Your task to perform on an android device: turn on priority inbox in the gmail app Image 0: 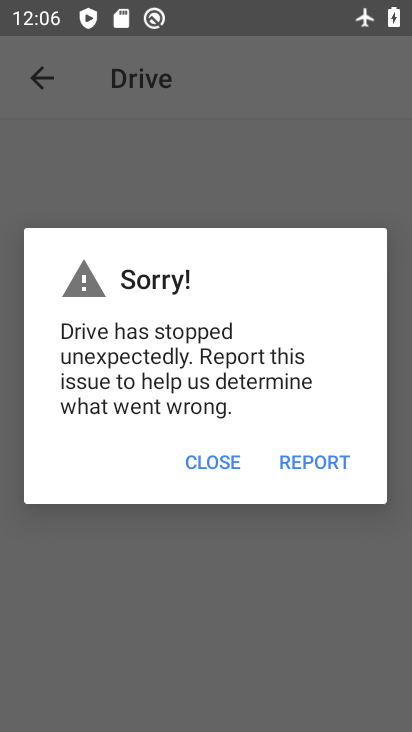
Step 0: press home button
Your task to perform on an android device: turn on priority inbox in the gmail app Image 1: 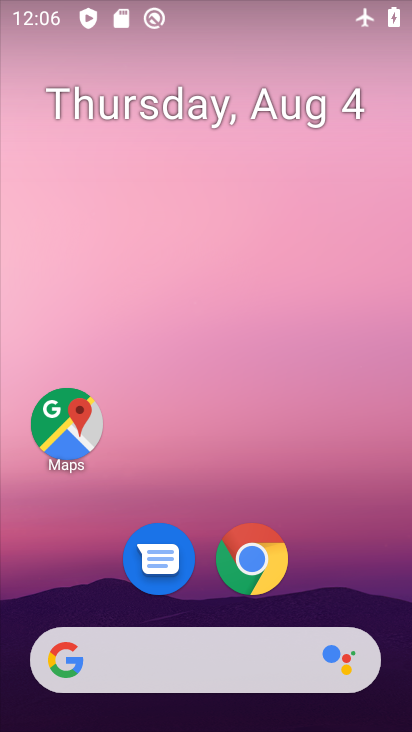
Step 1: drag from (174, 680) to (215, 103)
Your task to perform on an android device: turn on priority inbox in the gmail app Image 2: 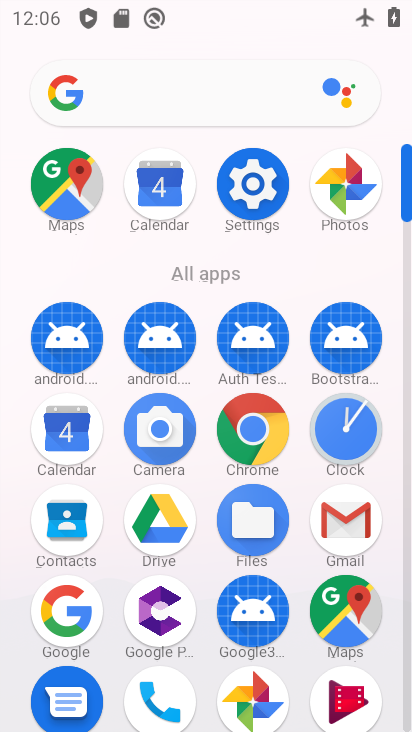
Step 2: click (345, 520)
Your task to perform on an android device: turn on priority inbox in the gmail app Image 3: 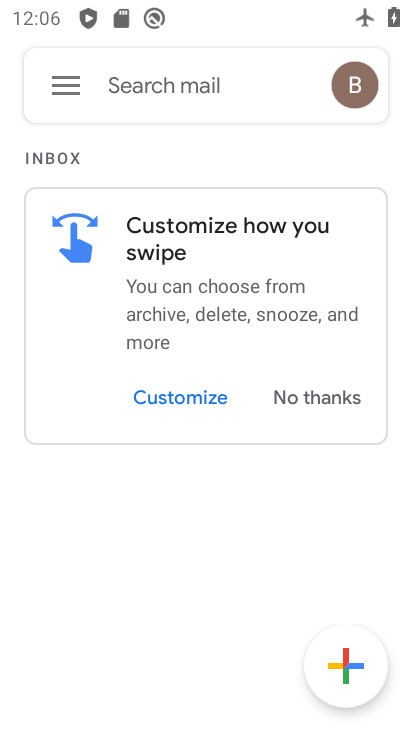
Step 3: click (63, 88)
Your task to perform on an android device: turn on priority inbox in the gmail app Image 4: 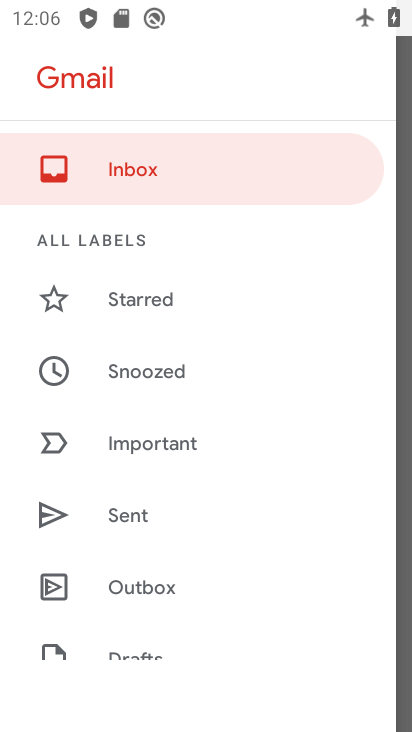
Step 4: drag from (155, 401) to (195, 330)
Your task to perform on an android device: turn on priority inbox in the gmail app Image 5: 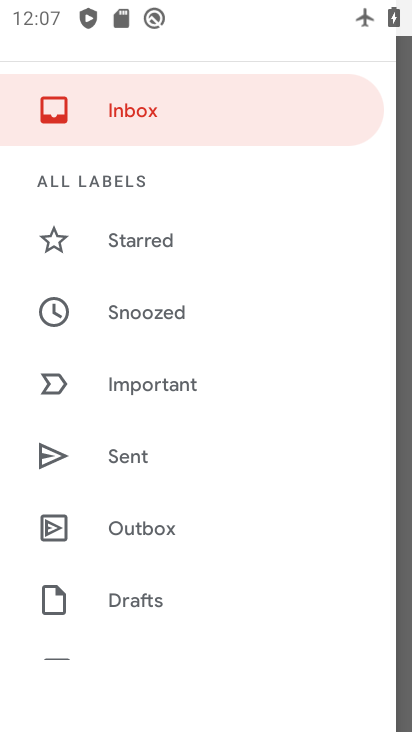
Step 5: drag from (156, 473) to (211, 393)
Your task to perform on an android device: turn on priority inbox in the gmail app Image 6: 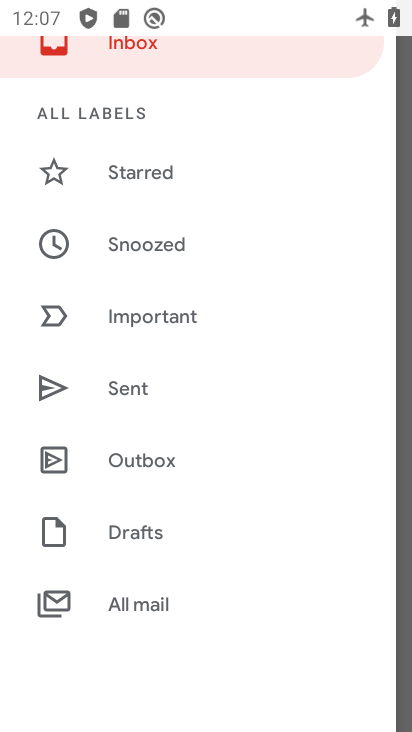
Step 6: drag from (123, 535) to (188, 446)
Your task to perform on an android device: turn on priority inbox in the gmail app Image 7: 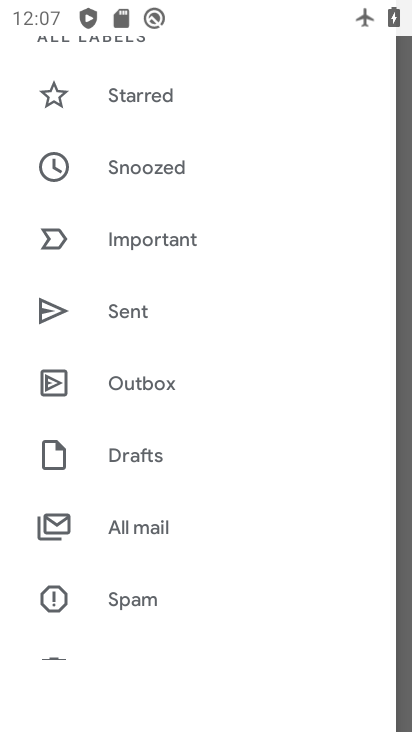
Step 7: drag from (110, 570) to (168, 466)
Your task to perform on an android device: turn on priority inbox in the gmail app Image 8: 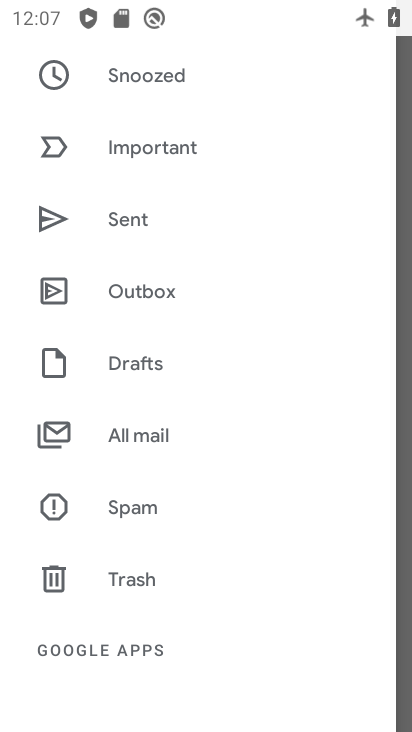
Step 8: drag from (116, 560) to (185, 465)
Your task to perform on an android device: turn on priority inbox in the gmail app Image 9: 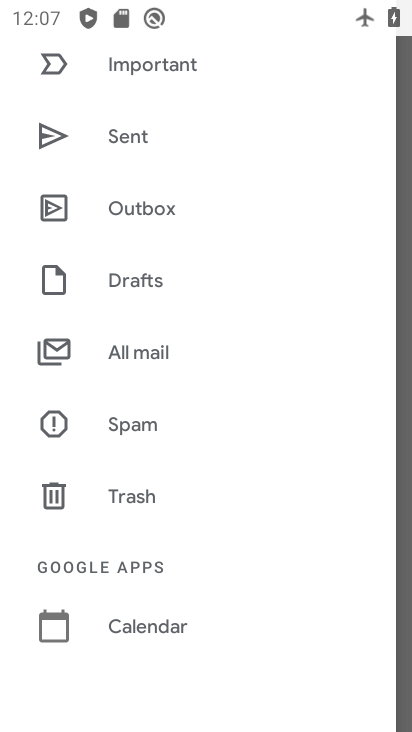
Step 9: drag from (144, 580) to (182, 509)
Your task to perform on an android device: turn on priority inbox in the gmail app Image 10: 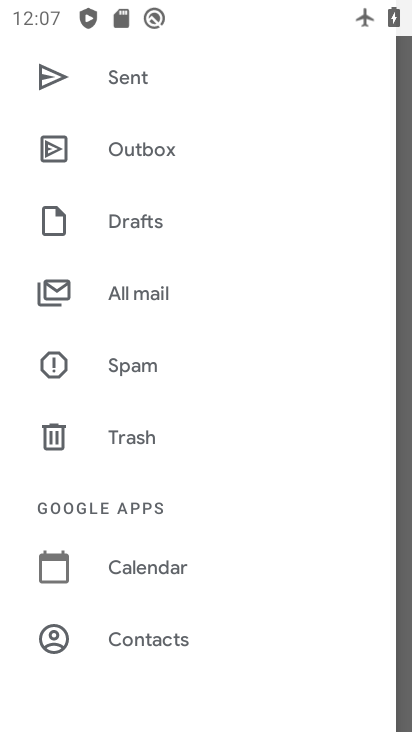
Step 10: drag from (140, 621) to (211, 534)
Your task to perform on an android device: turn on priority inbox in the gmail app Image 11: 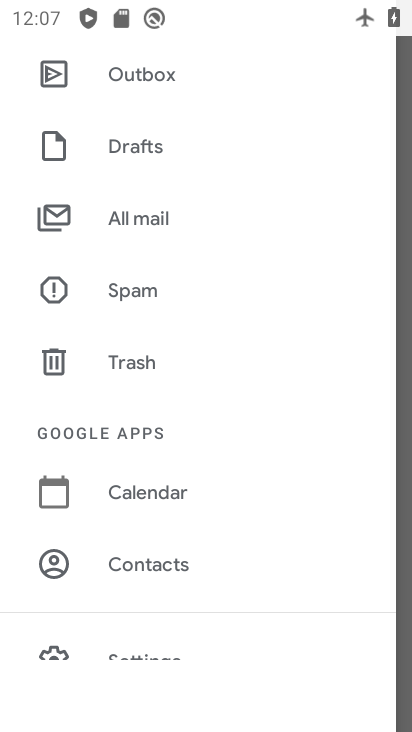
Step 11: drag from (148, 600) to (204, 520)
Your task to perform on an android device: turn on priority inbox in the gmail app Image 12: 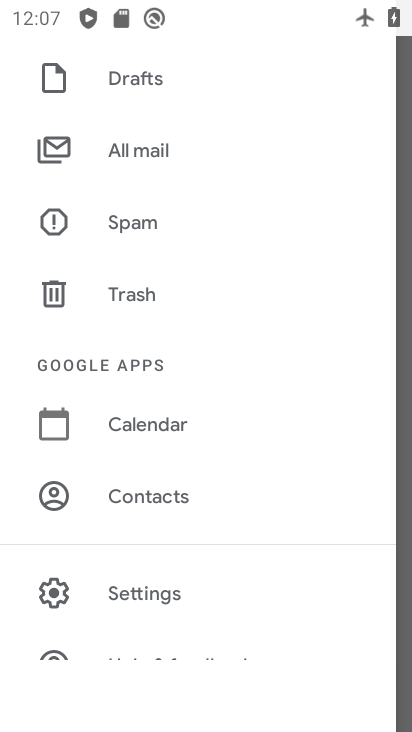
Step 12: drag from (143, 562) to (232, 436)
Your task to perform on an android device: turn on priority inbox in the gmail app Image 13: 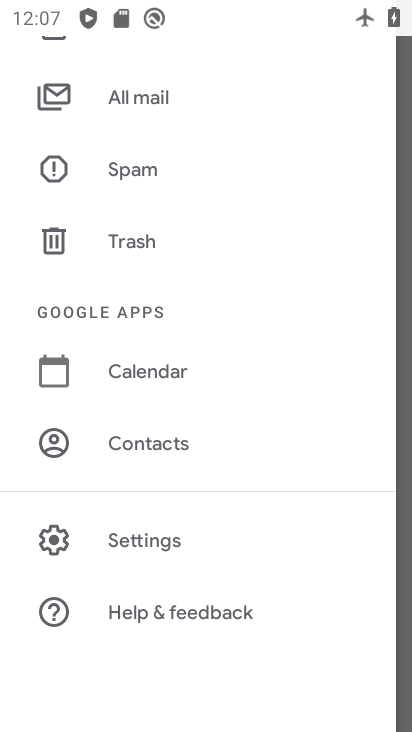
Step 13: click (176, 542)
Your task to perform on an android device: turn on priority inbox in the gmail app Image 14: 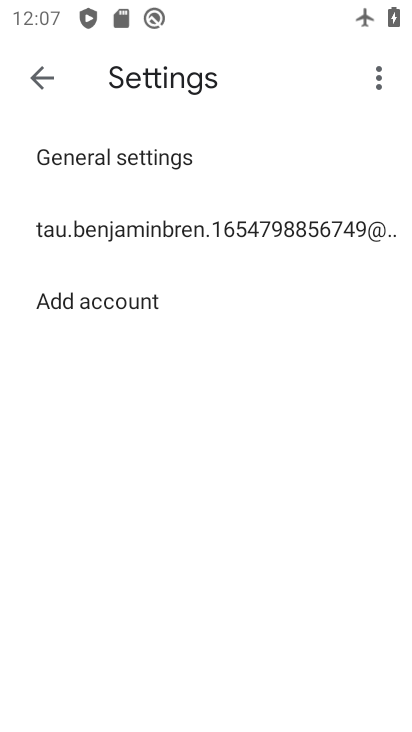
Step 14: click (245, 228)
Your task to perform on an android device: turn on priority inbox in the gmail app Image 15: 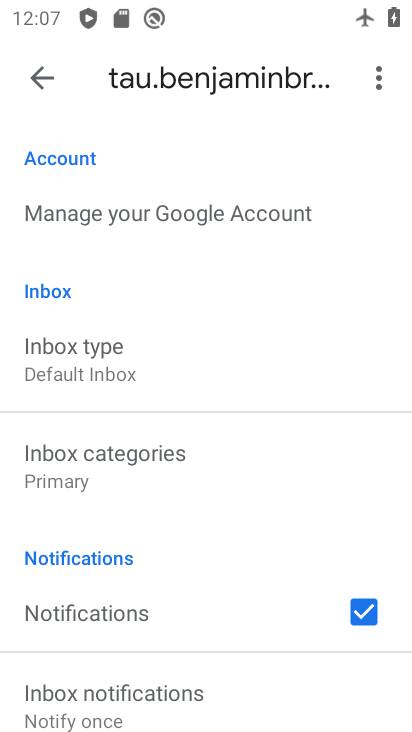
Step 15: drag from (115, 500) to (167, 378)
Your task to perform on an android device: turn on priority inbox in the gmail app Image 16: 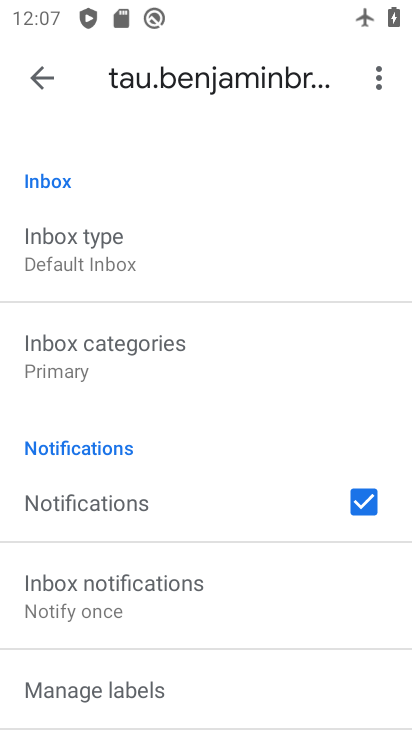
Step 16: drag from (186, 633) to (191, 488)
Your task to perform on an android device: turn on priority inbox in the gmail app Image 17: 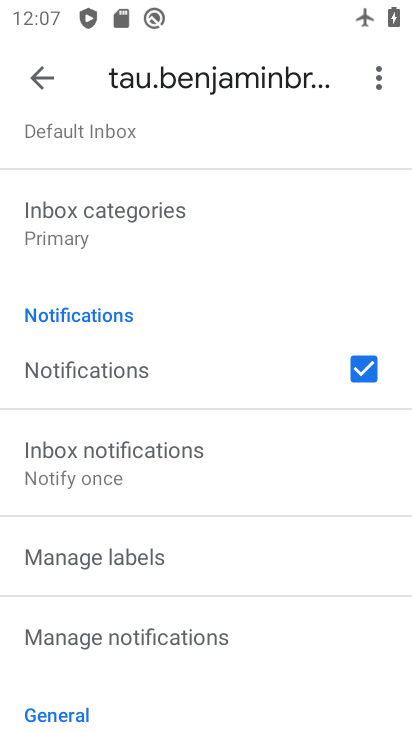
Step 17: drag from (136, 595) to (173, 509)
Your task to perform on an android device: turn on priority inbox in the gmail app Image 18: 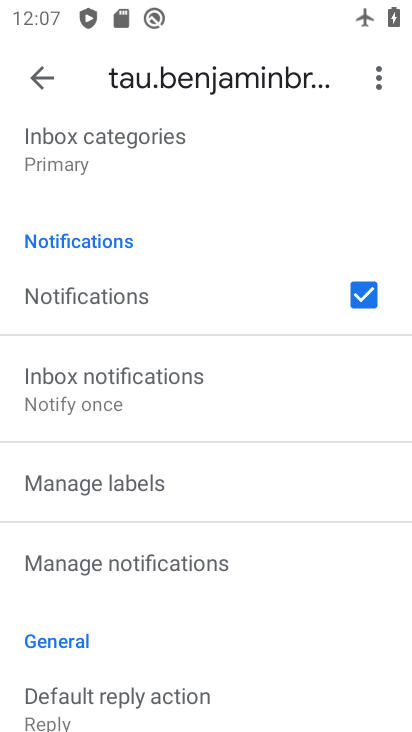
Step 18: drag from (140, 618) to (189, 520)
Your task to perform on an android device: turn on priority inbox in the gmail app Image 19: 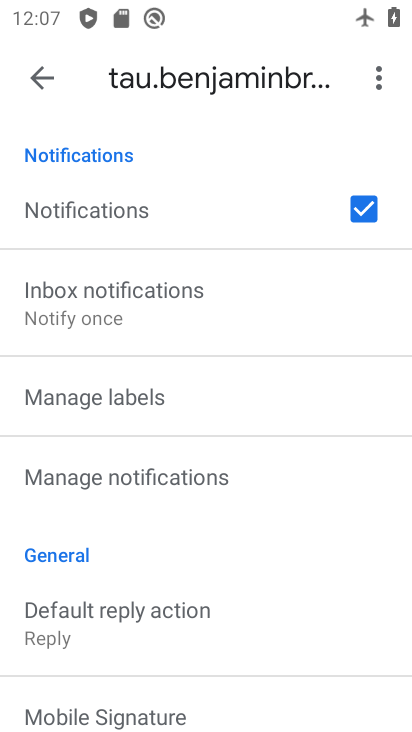
Step 19: drag from (153, 647) to (186, 547)
Your task to perform on an android device: turn on priority inbox in the gmail app Image 20: 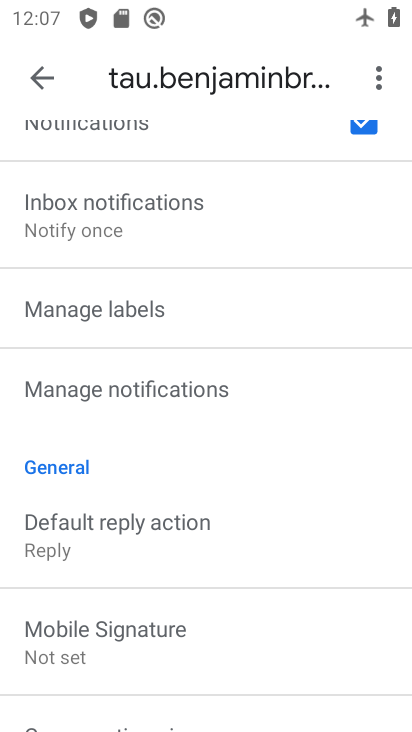
Step 20: drag from (150, 691) to (183, 592)
Your task to perform on an android device: turn on priority inbox in the gmail app Image 21: 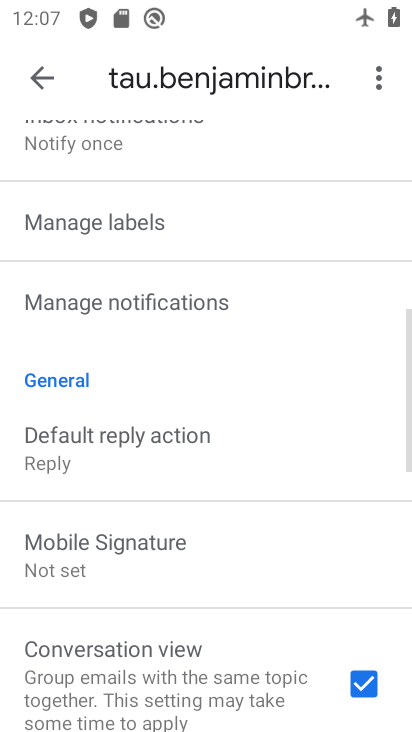
Step 21: drag from (228, 310) to (219, 568)
Your task to perform on an android device: turn on priority inbox in the gmail app Image 22: 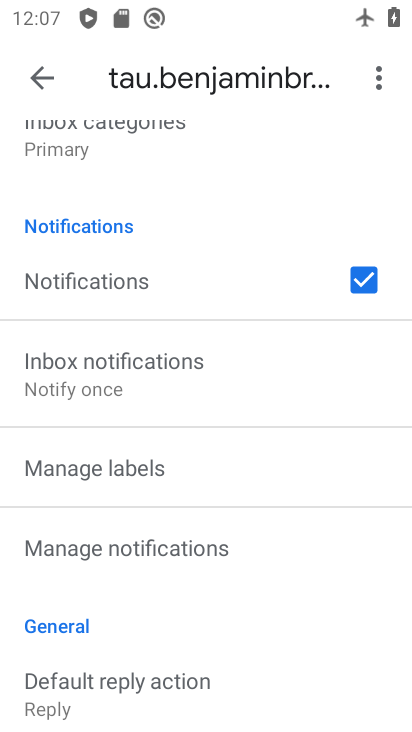
Step 22: drag from (161, 322) to (171, 579)
Your task to perform on an android device: turn on priority inbox in the gmail app Image 23: 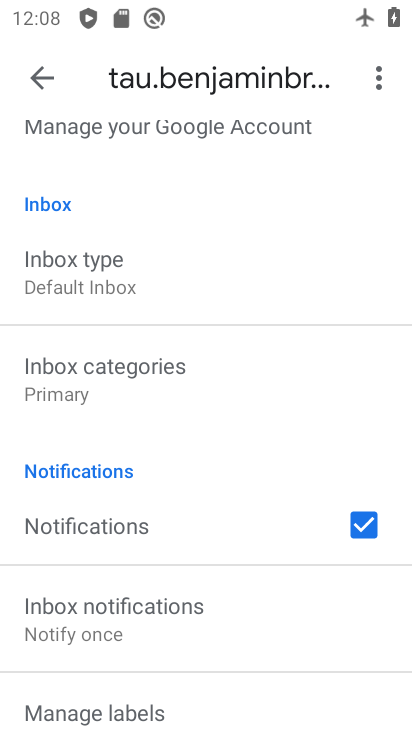
Step 23: click (80, 291)
Your task to perform on an android device: turn on priority inbox in the gmail app Image 24: 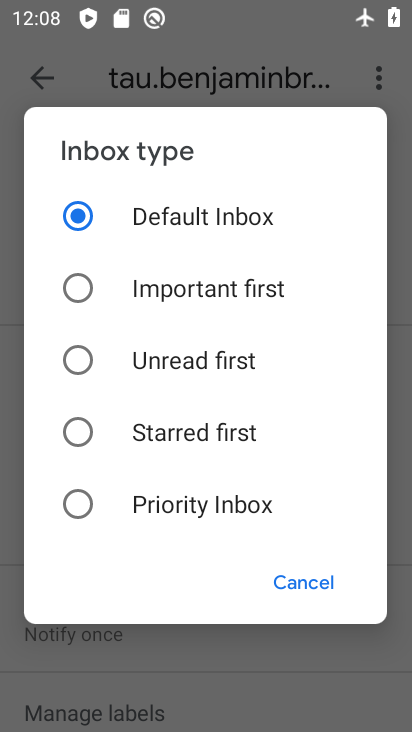
Step 24: click (87, 504)
Your task to perform on an android device: turn on priority inbox in the gmail app Image 25: 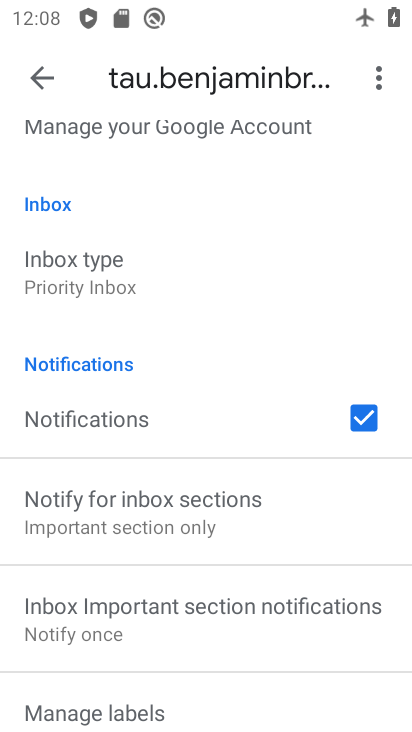
Step 25: task complete